Your task to perform on an android device: Search for macbook air on ebay, select the first entry, add it to the cart, then select checkout. Image 0: 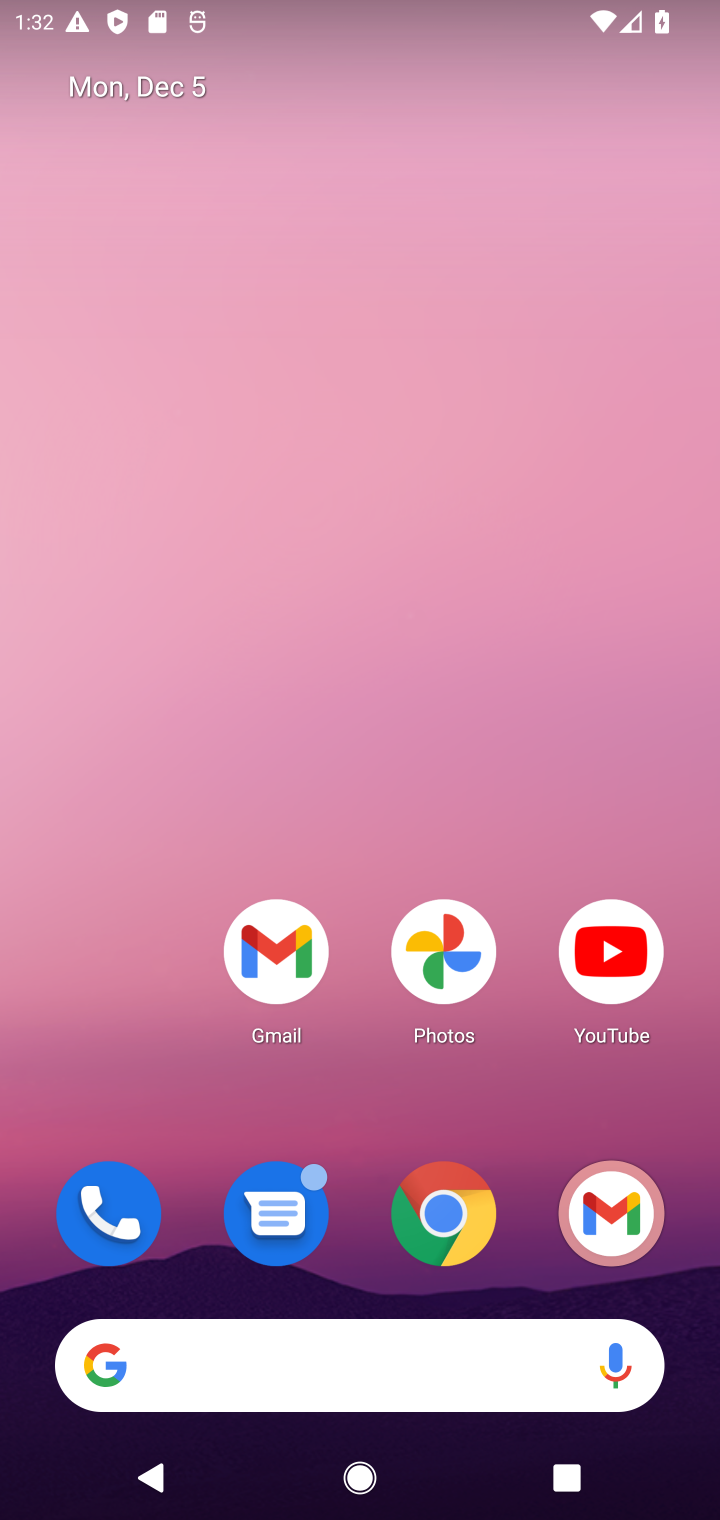
Step 0: click (449, 1220)
Your task to perform on an android device: Search for macbook air on ebay, select the first entry, add it to the cart, then select checkout. Image 1: 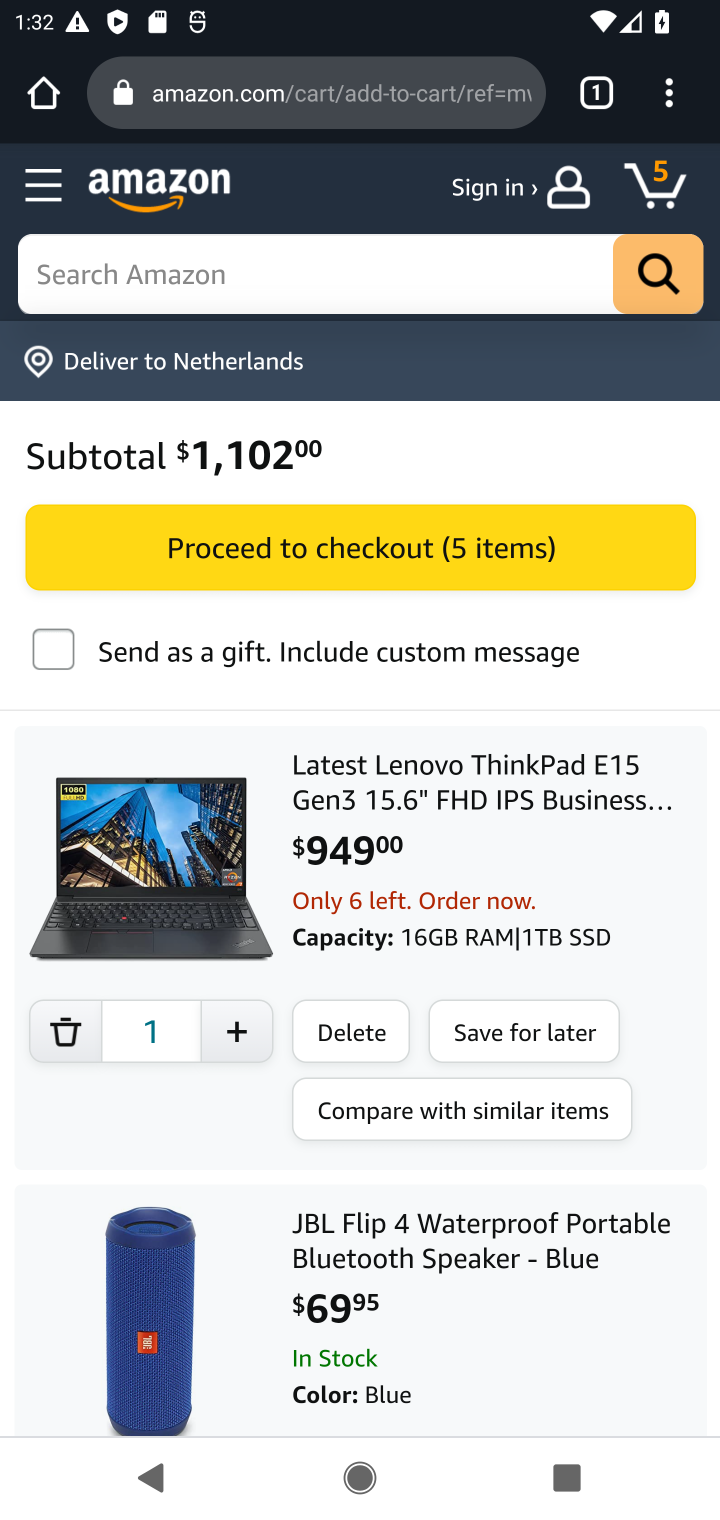
Step 1: click (301, 104)
Your task to perform on an android device: Search for macbook air on ebay, select the first entry, add it to the cart, then select checkout. Image 2: 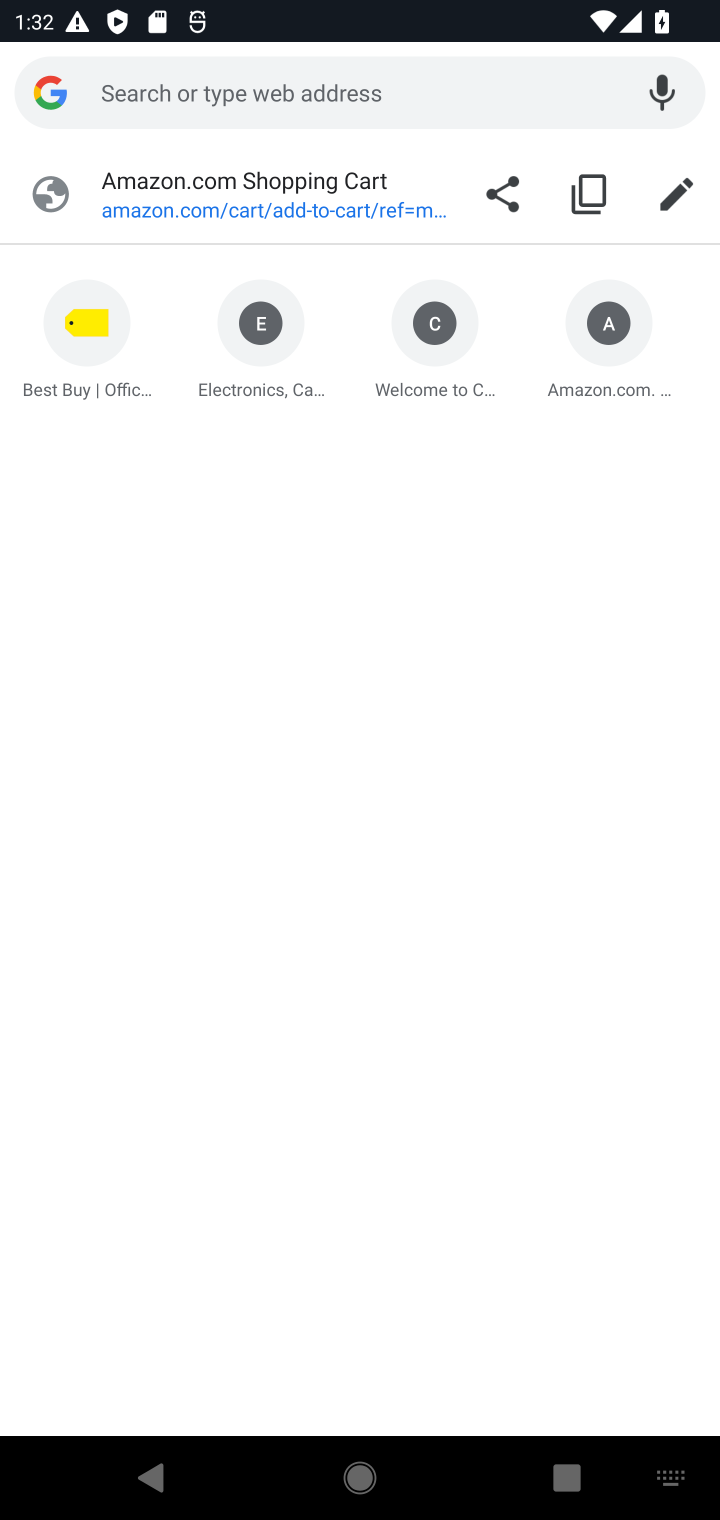
Step 2: type "ebay.com"
Your task to perform on an android device: Search for macbook air on ebay, select the first entry, add it to the cart, then select checkout. Image 3: 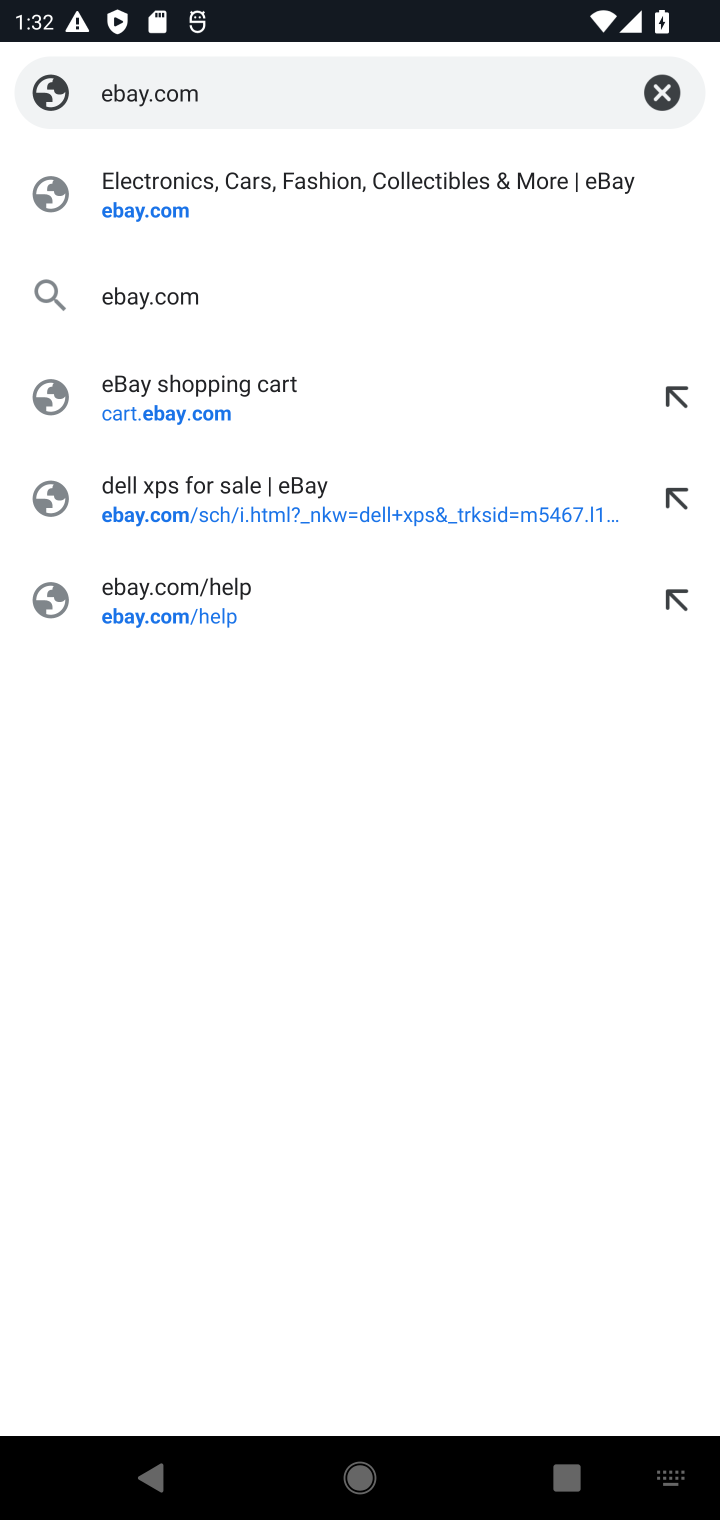
Step 3: click (128, 209)
Your task to perform on an android device: Search for macbook air on ebay, select the first entry, add it to the cart, then select checkout. Image 4: 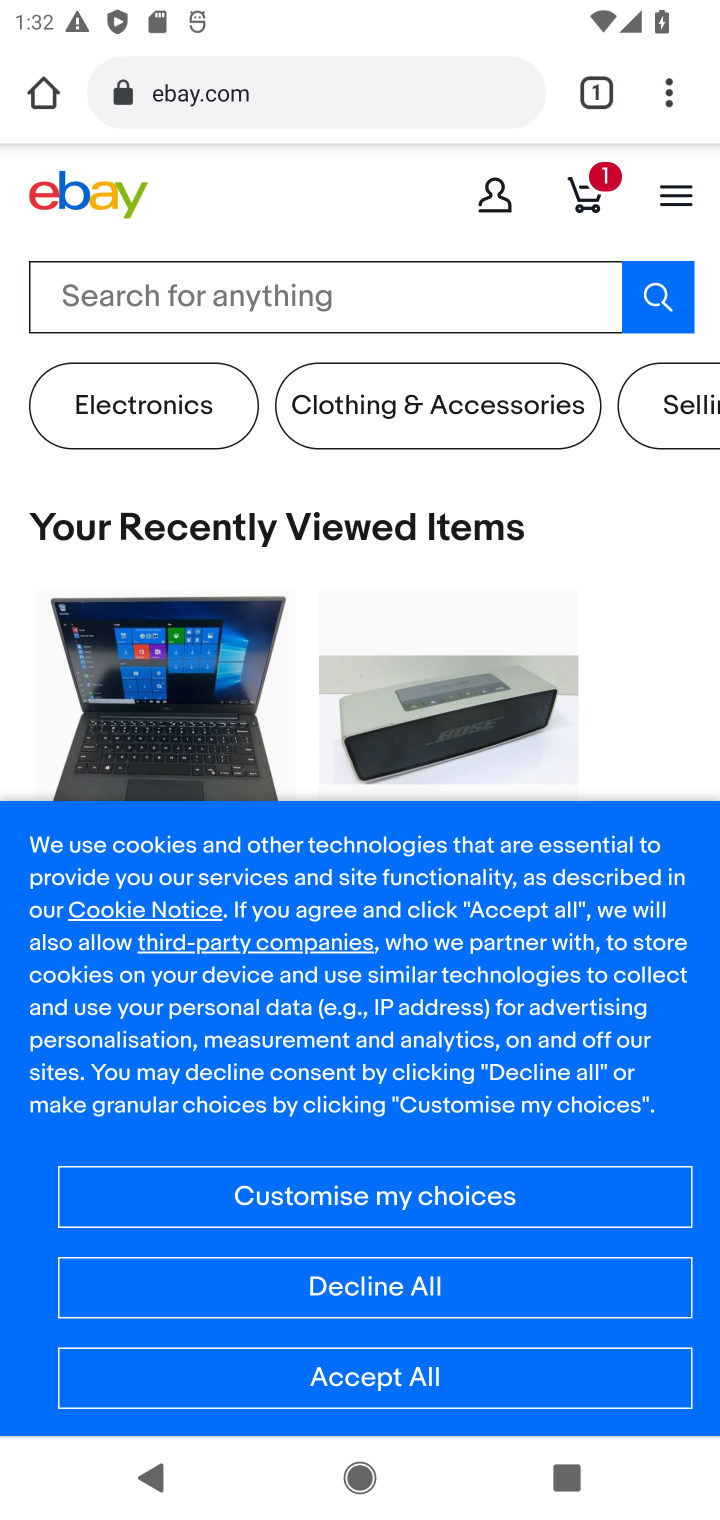
Step 4: click (333, 306)
Your task to perform on an android device: Search for macbook air on ebay, select the first entry, add it to the cart, then select checkout. Image 5: 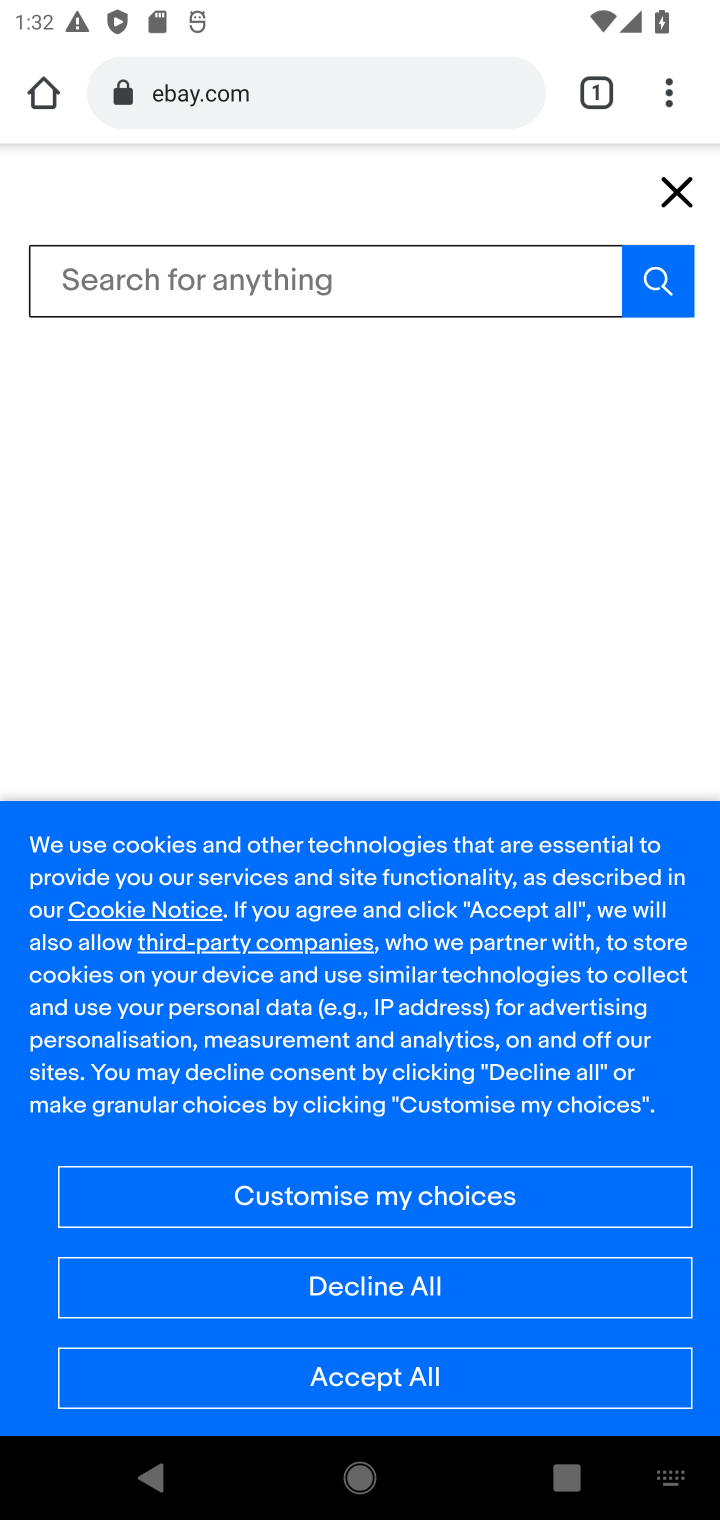
Step 5: type "macbook air "
Your task to perform on an android device: Search for macbook air on ebay, select the first entry, add it to the cart, then select checkout. Image 6: 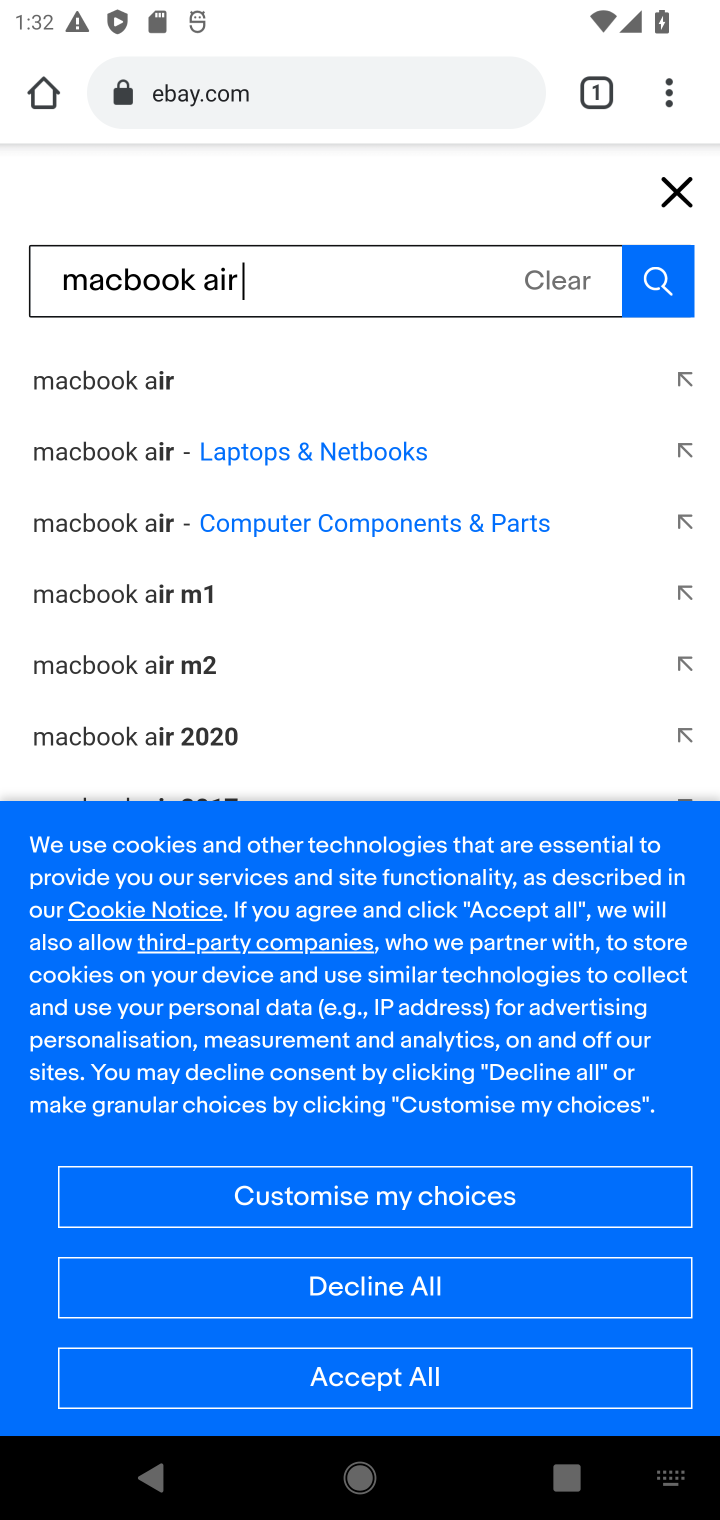
Step 6: click (102, 391)
Your task to perform on an android device: Search for macbook air on ebay, select the first entry, add it to the cart, then select checkout. Image 7: 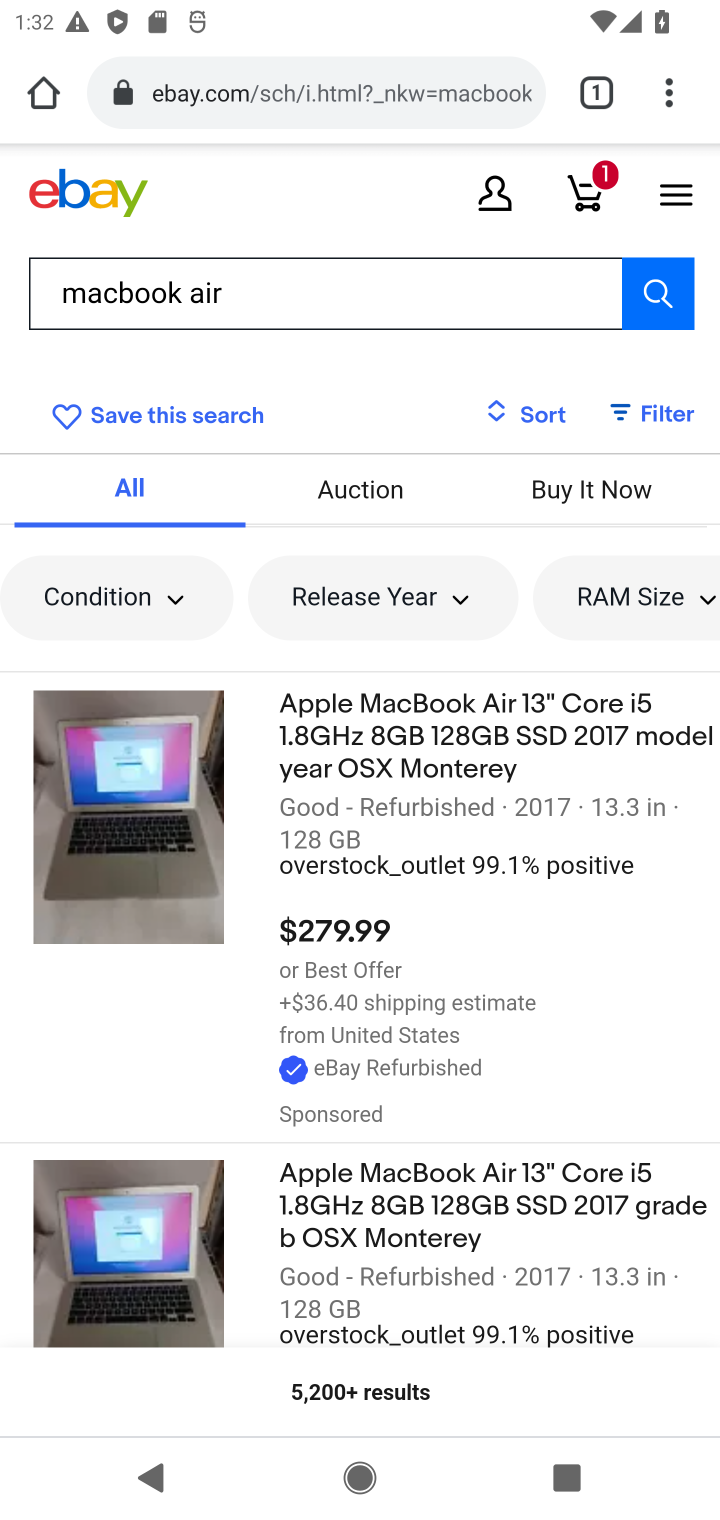
Step 7: click (381, 762)
Your task to perform on an android device: Search for macbook air on ebay, select the first entry, add it to the cart, then select checkout. Image 8: 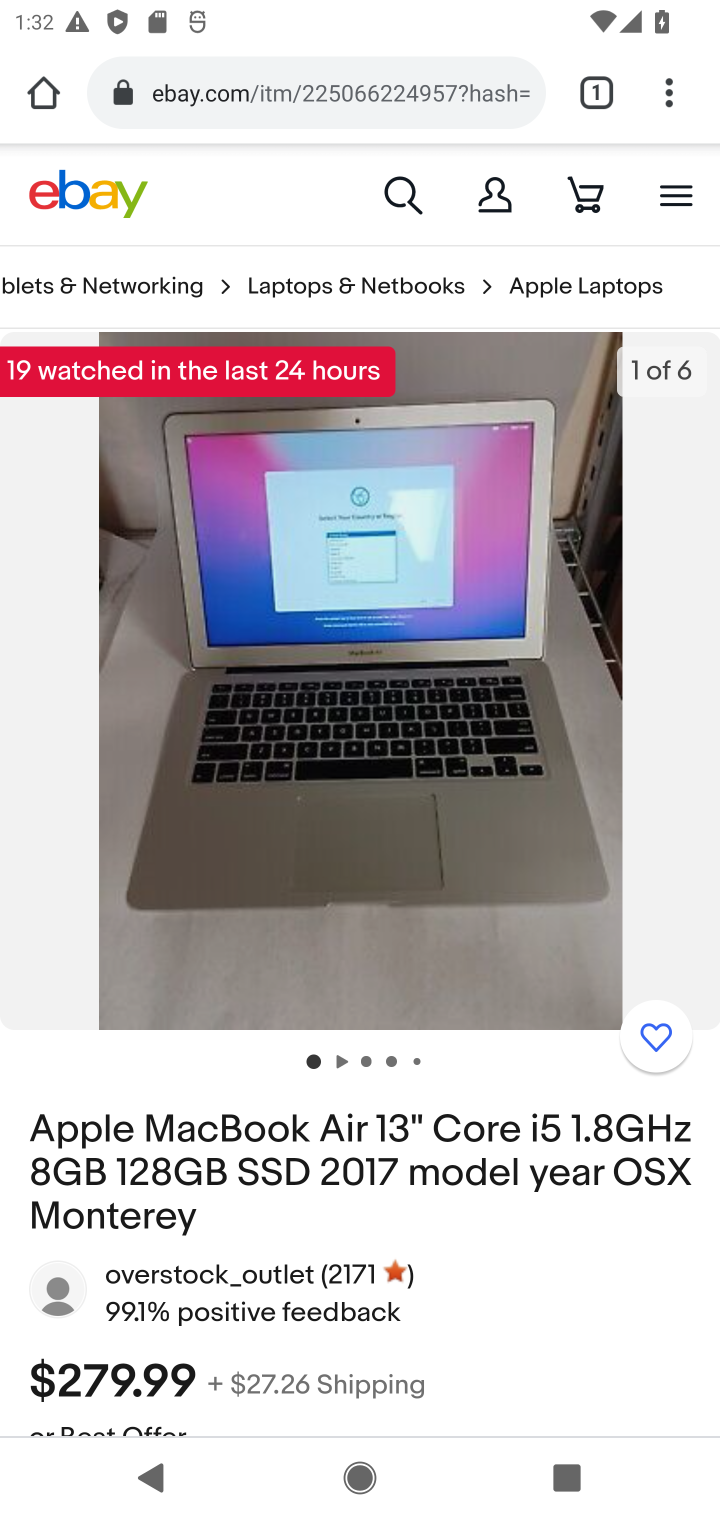
Step 8: drag from (465, 777) to (478, 453)
Your task to perform on an android device: Search for macbook air on ebay, select the first entry, add it to the cart, then select checkout. Image 9: 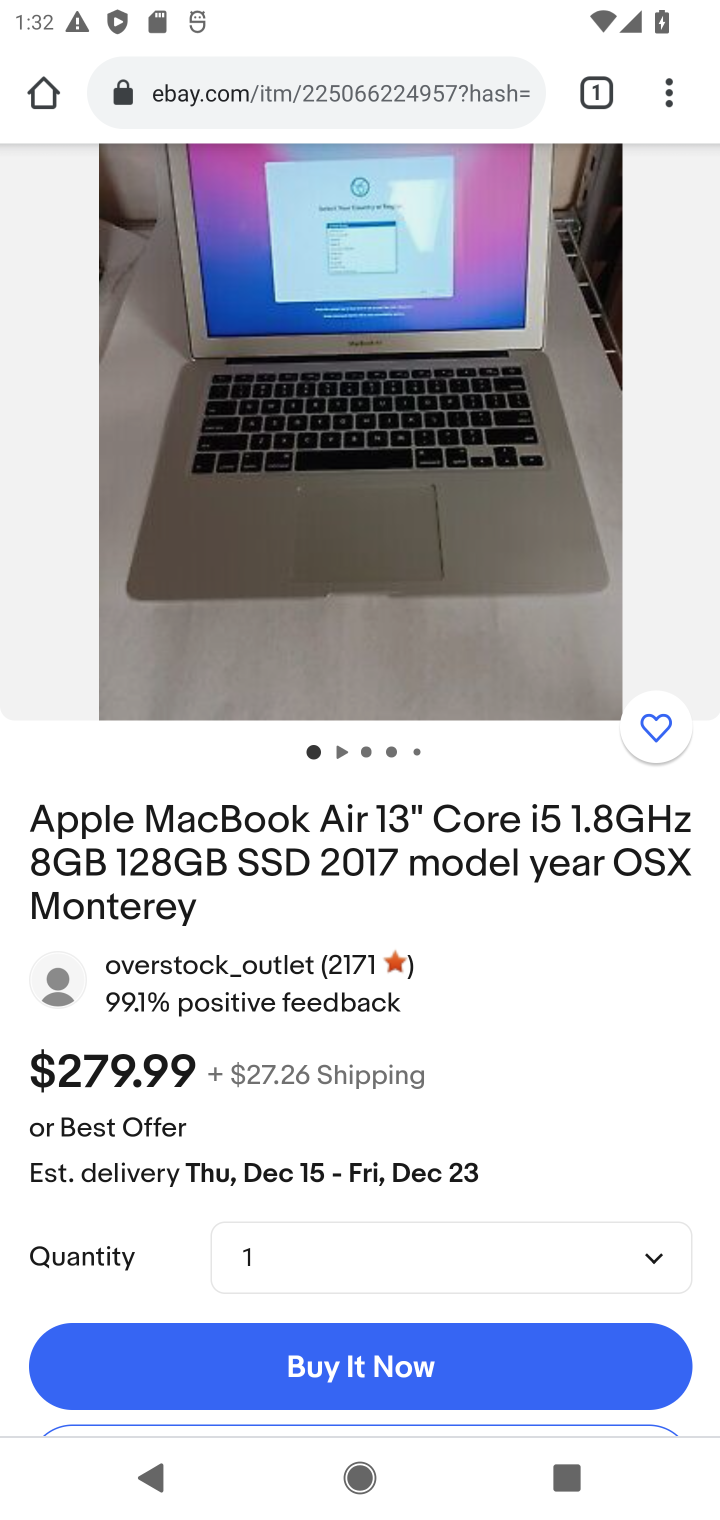
Step 9: drag from (475, 836) to (477, 470)
Your task to perform on an android device: Search for macbook air on ebay, select the first entry, add it to the cart, then select checkout. Image 10: 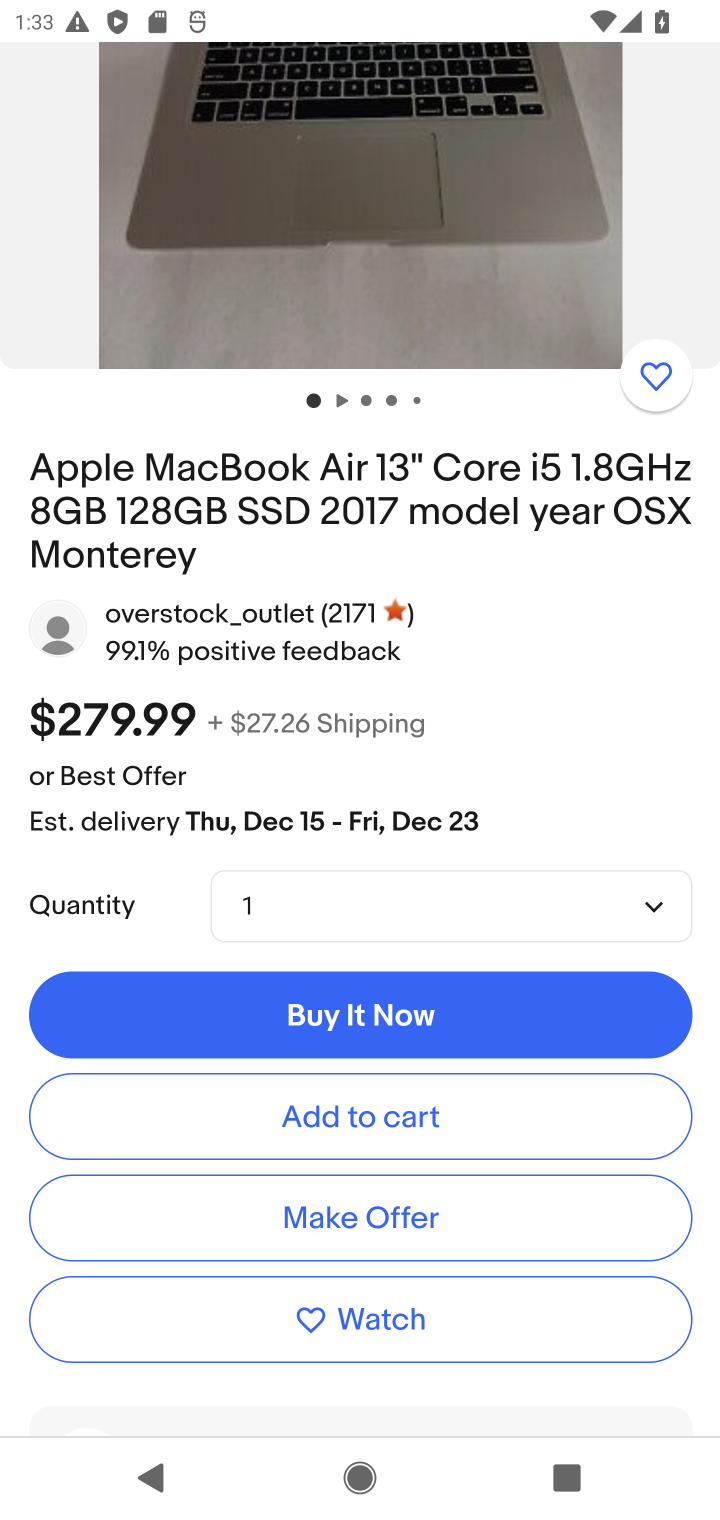
Step 10: click (307, 1117)
Your task to perform on an android device: Search for macbook air on ebay, select the first entry, add it to the cart, then select checkout. Image 11: 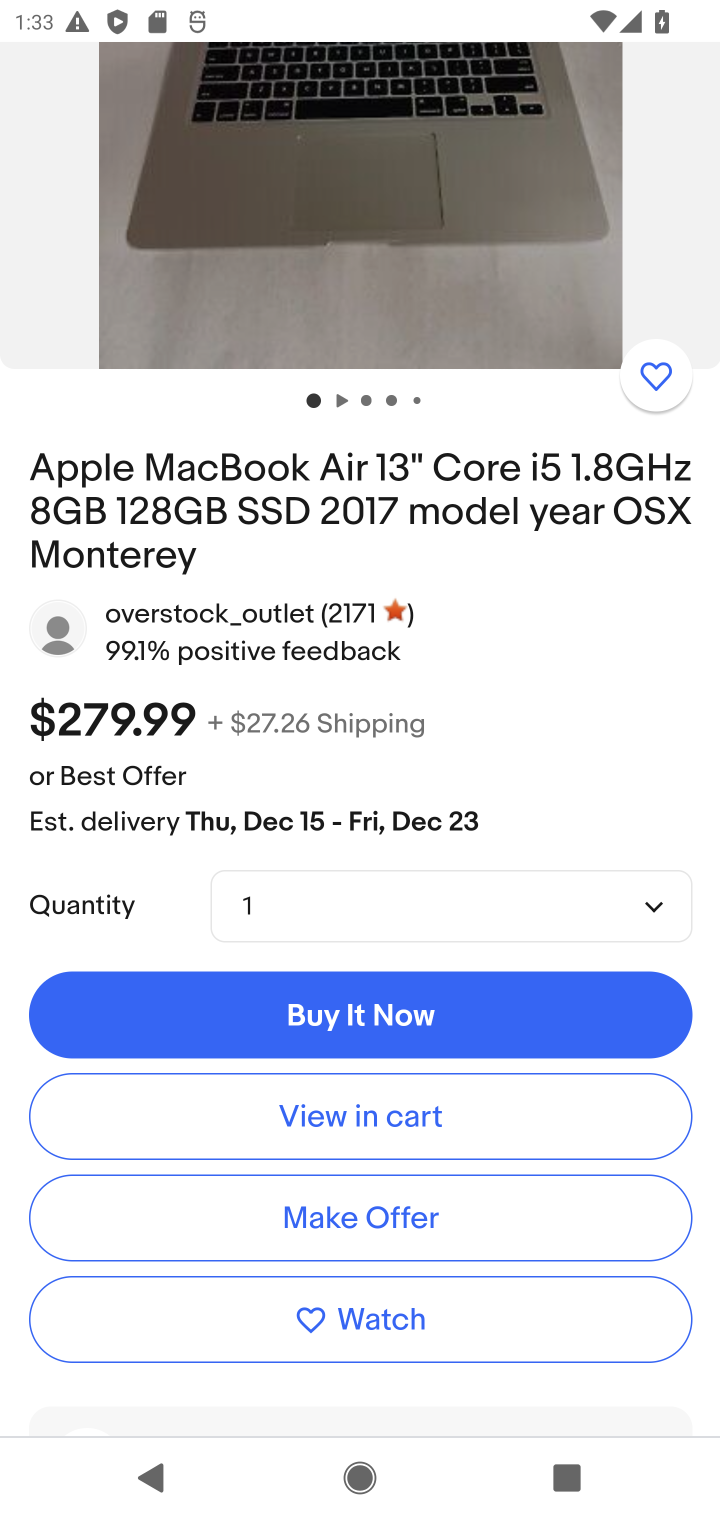
Step 11: click (307, 1117)
Your task to perform on an android device: Search for macbook air on ebay, select the first entry, add it to the cart, then select checkout. Image 12: 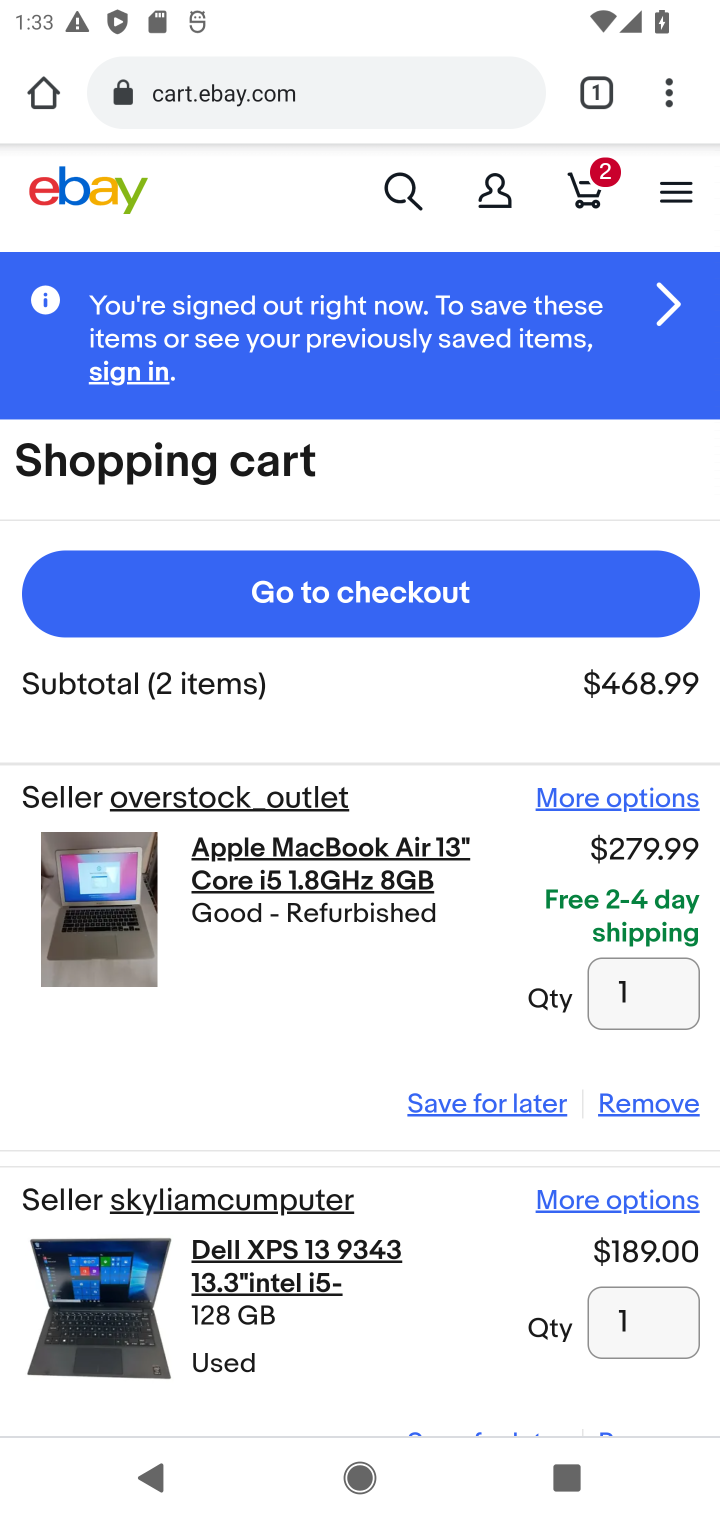
Step 12: click (333, 593)
Your task to perform on an android device: Search for macbook air on ebay, select the first entry, add it to the cart, then select checkout. Image 13: 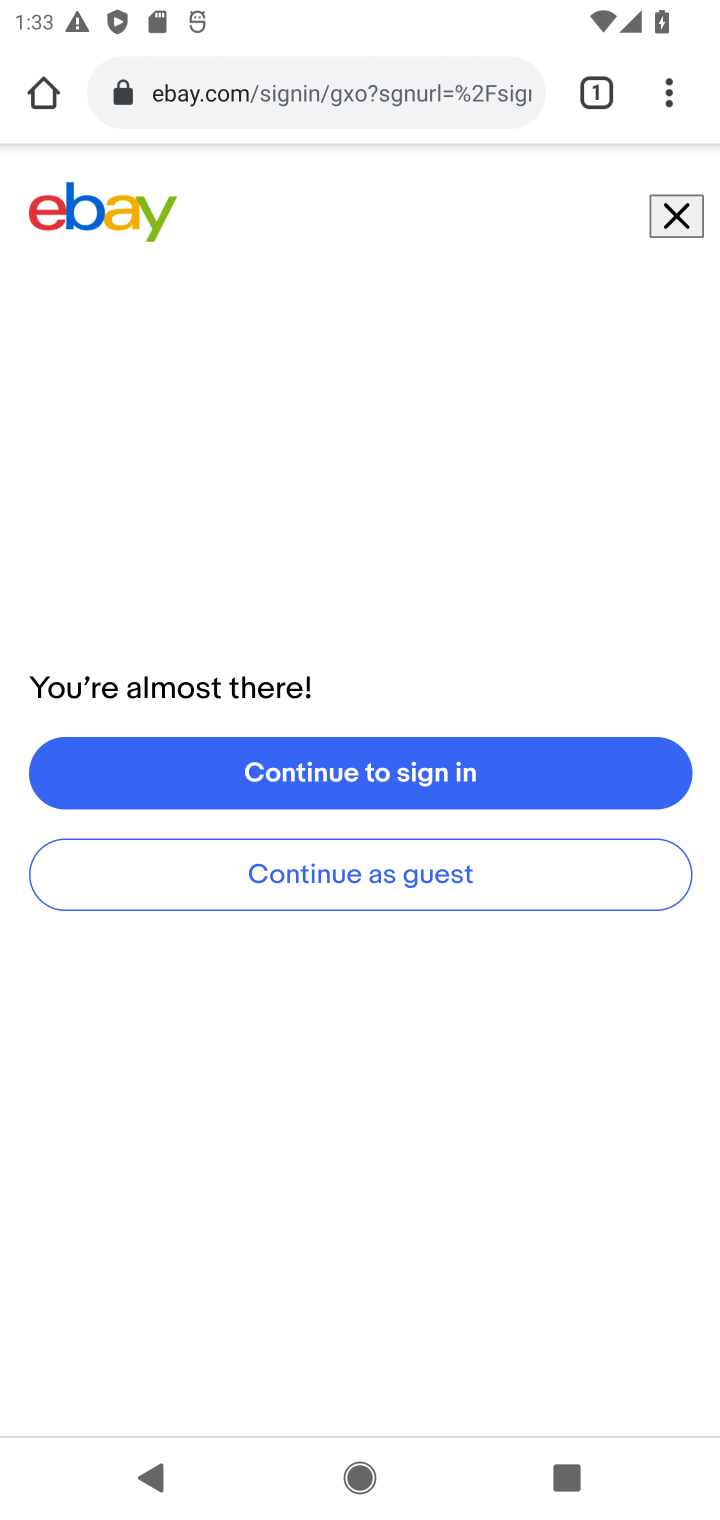
Step 13: task complete